Your task to perform on an android device: change the clock style Image 0: 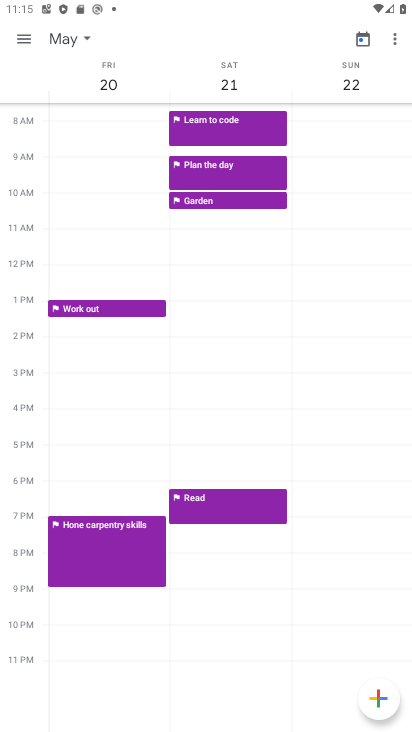
Step 0: press home button
Your task to perform on an android device: change the clock style Image 1: 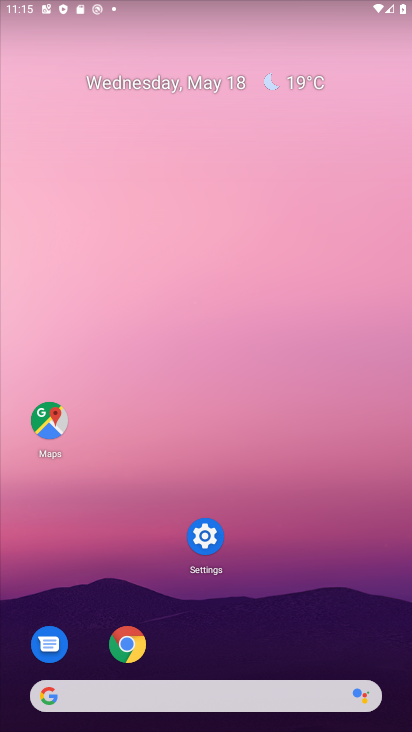
Step 1: drag from (335, 580) to (308, 167)
Your task to perform on an android device: change the clock style Image 2: 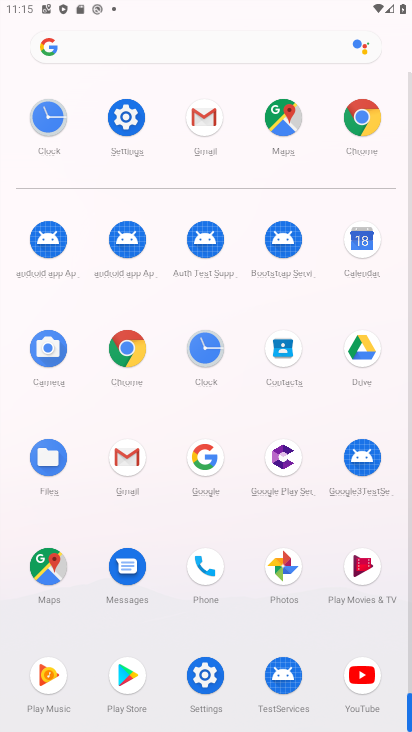
Step 2: click (122, 123)
Your task to perform on an android device: change the clock style Image 3: 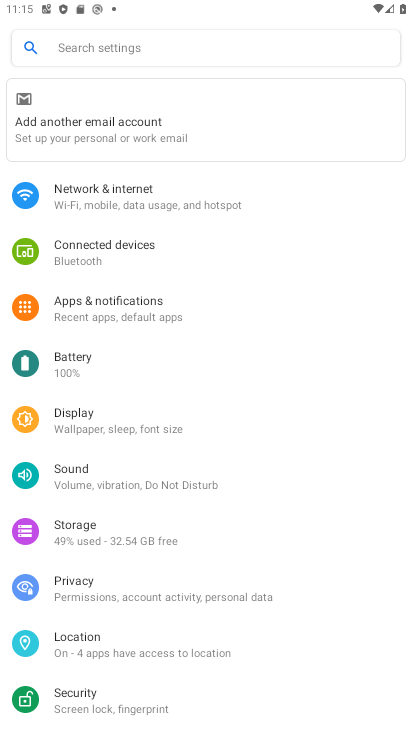
Step 3: press home button
Your task to perform on an android device: change the clock style Image 4: 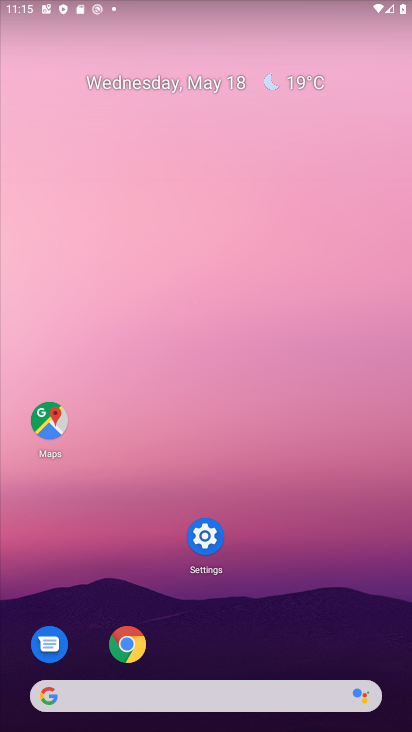
Step 4: drag from (318, 560) to (331, 94)
Your task to perform on an android device: change the clock style Image 5: 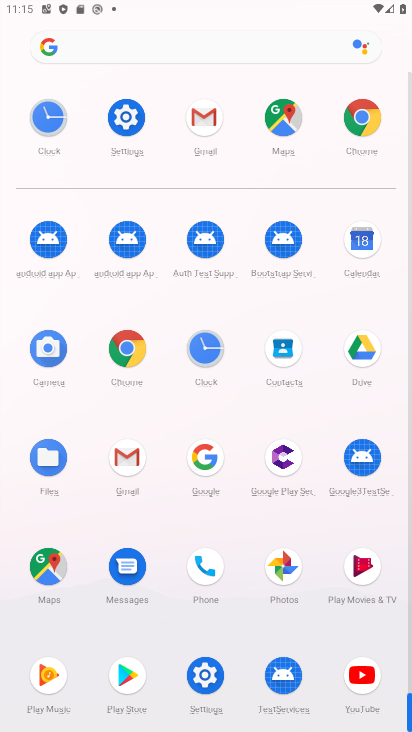
Step 5: click (208, 368)
Your task to perform on an android device: change the clock style Image 6: 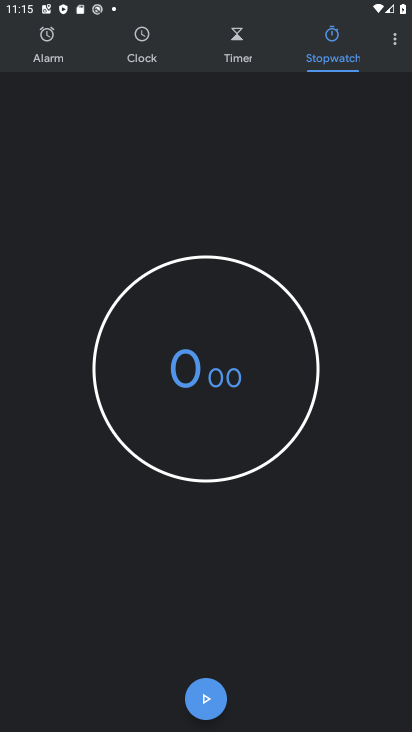
Step 6: click (397, 44)
Your task to perform on an android device: change the clock style Image 7: 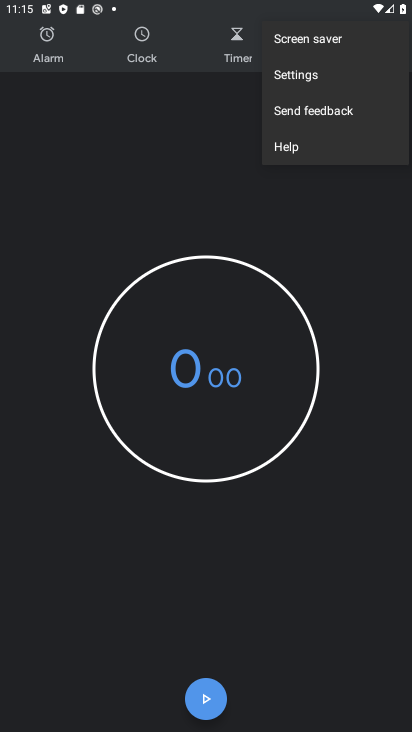
Step 7: click (297, 73)
Your task to perform on an android device: change the clock style Image 8: 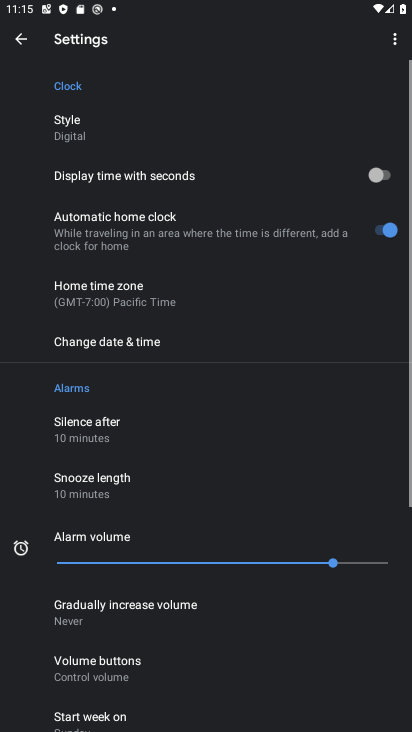
Step 8: click (104, 131)
Your task to perform on an android device: change the clock style Image 9: 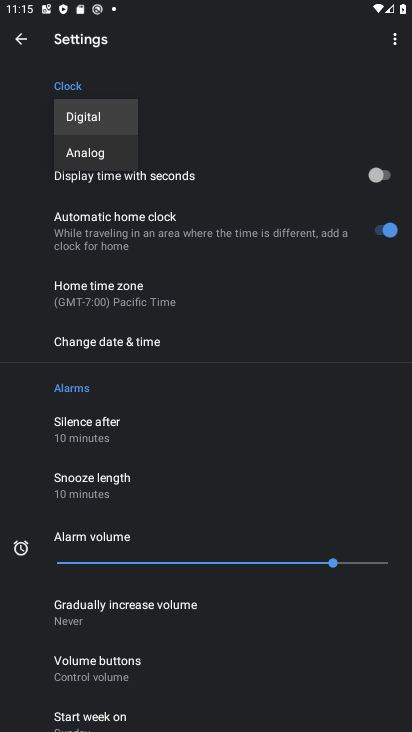
Step 9: click (112, 156)
Your task to perform on an android device: change the clock style Image 10: 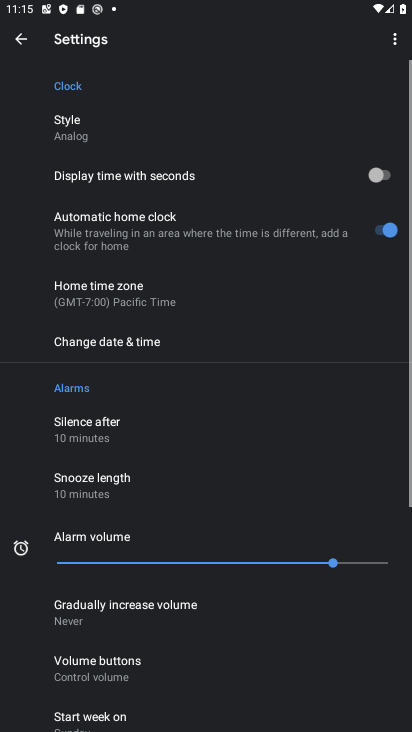
Step 10: task complete